Your task to perform on an android device: make emails show in primary in the gmail app Image 0: 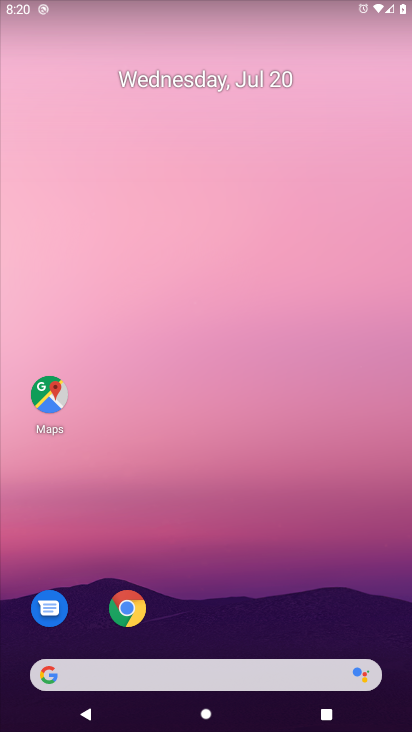
Step 0: drag from (168, 637) to (300, 37)
Your task to perform on an android device: make emails show in primary in the gmail app Image 1: 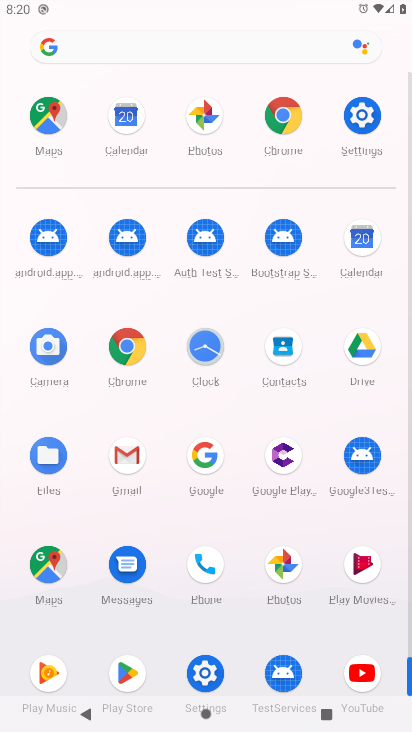
Step 1: click (134, 451)
Your task to perform on an android device: make emails show in primary in the gmail app Image 2: 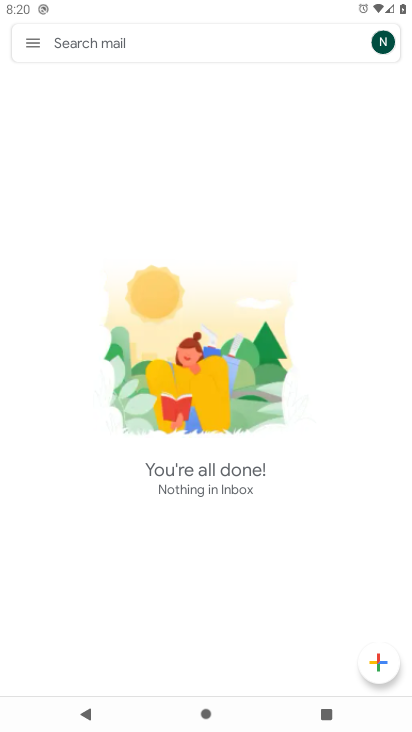
Step 2: click (38, 44)
Your task to perform on an android device: make emails show in primary in the gmail app Image 3: 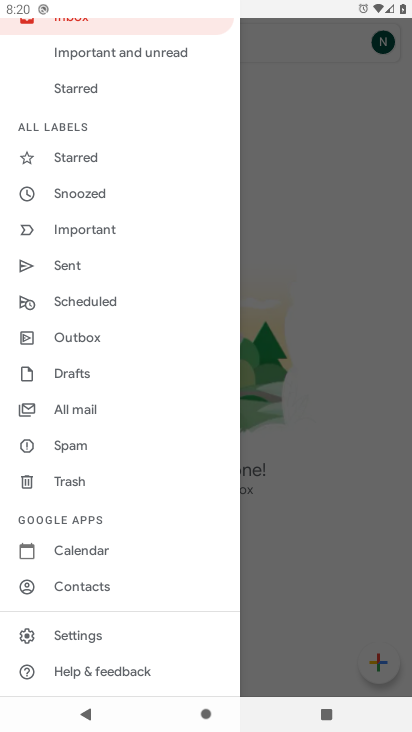
Step 3: click (91, 633)
Your task to perform on an android device: make emails show in primary in the gmail app Image 4: 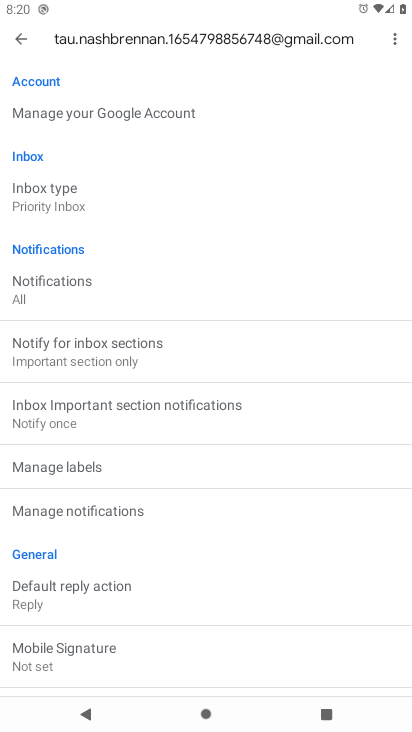
Step 4: click (76, 203)
Your task to perform on an android device: make emails show in primary in the gmail app Image 5: 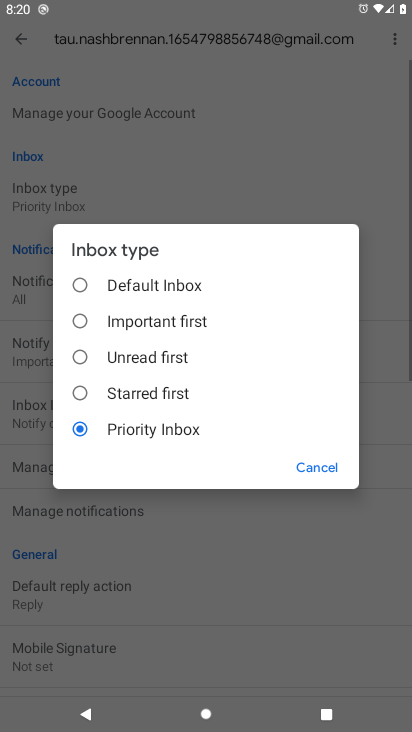
Step 5: click (140, 278)
Your task to perform on an android device: make emails show in primary in the gmail app Image 6: 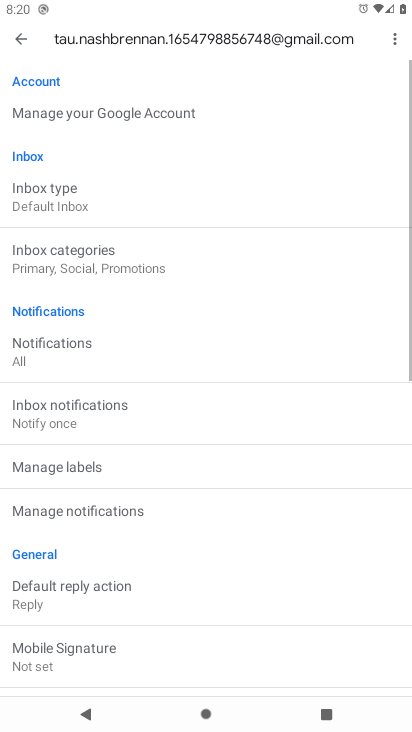
Step 6: click (123, 266)
Your task to perform on an android device: make emails show in primary in the gmail app Image 7: 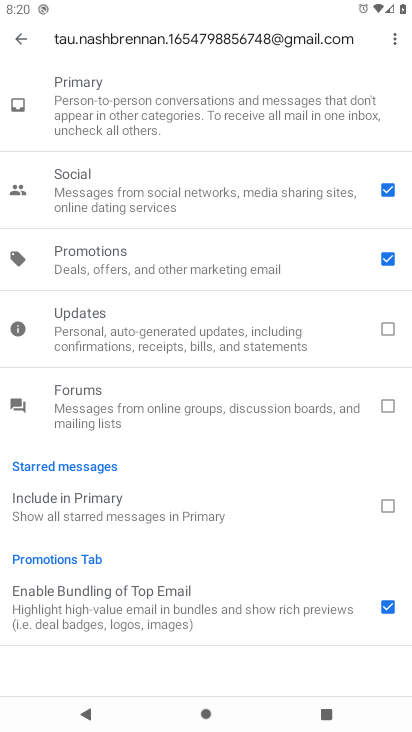
Step 7: click (359, 184)
Your task to perform on an android device: make emails show in primary in the gmail app Image 8: 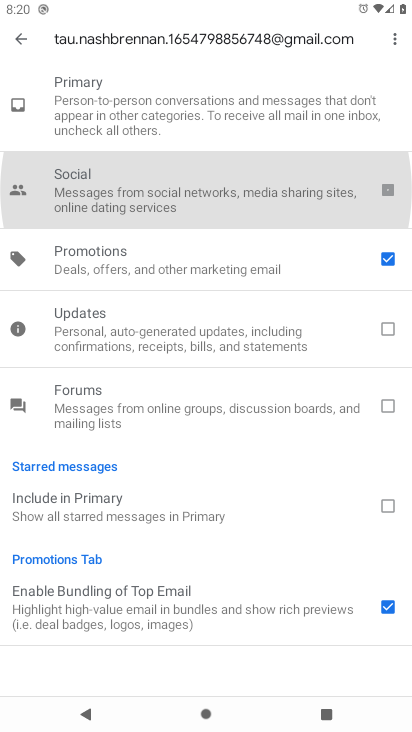
Step 8: click (364, 283)
Your task to perform on an android device: make emails show in primary in the gmail app Image 9: 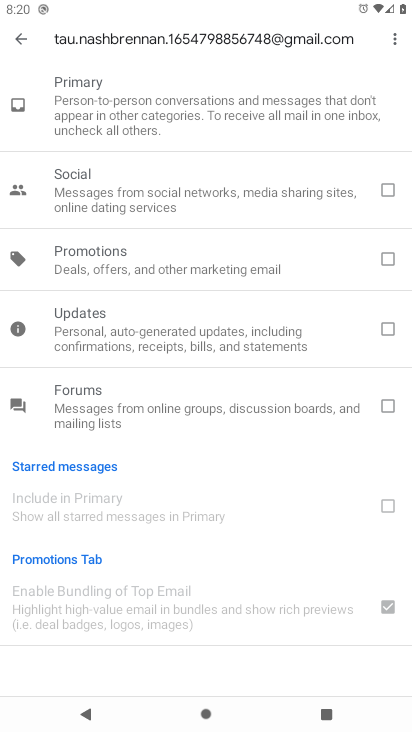
Step 9: task complete